Your task to perform on an android device: Turn on the flashlight Image 0: 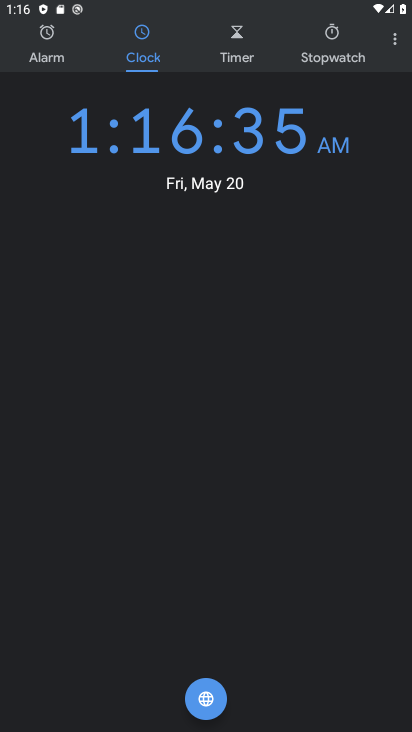
Step 0: drag from (175, 14) to (1, 290)
Your task to perform on an android device: Turn on the flashlight Image 1: 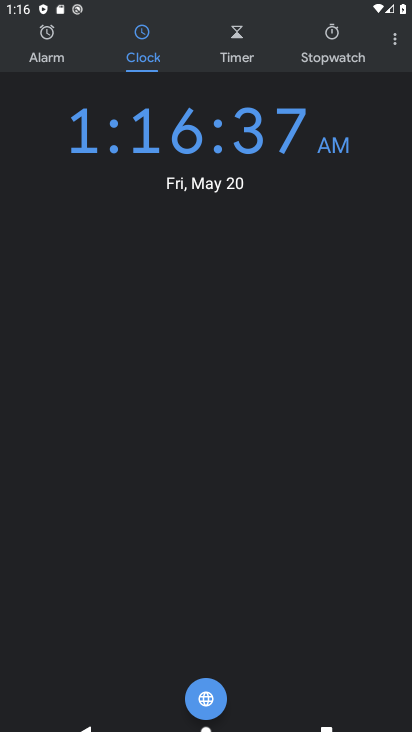
Step 1: drag from (145, 67) to (143, 722)
Your task to perform on an android device: Turn on the flashlight Image 2: 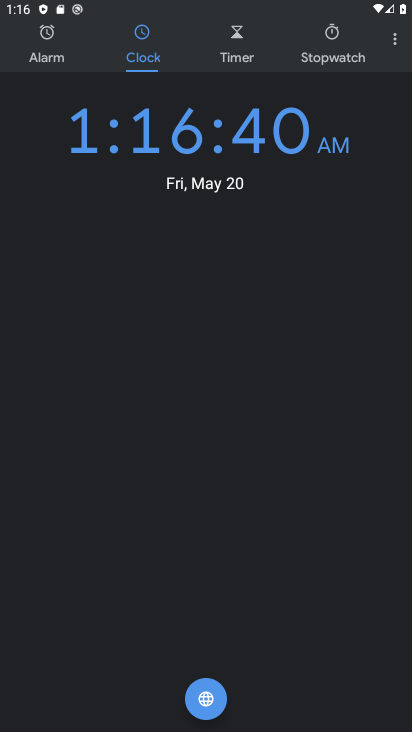
Step 2: drag from (176, 12) to (163, 711)
Your task to perform on an android device: Turn on the flashlight Image 3: 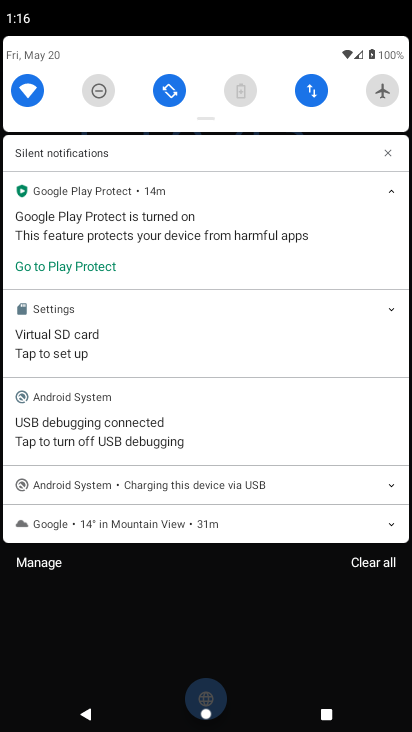
Step 3: drag from (122, 111) to (209, 668)
Your task to perform on an android device: Turn on the flashlight Image 4: 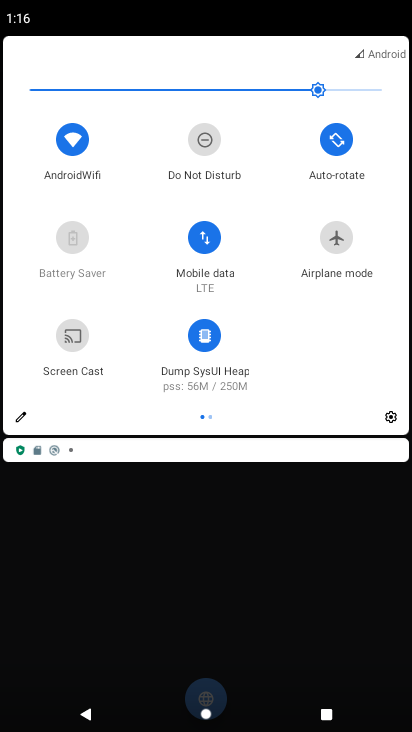
Step 4: click (386, 410)
Your task to perform on an android device: Turn on the flashlight Image 5: 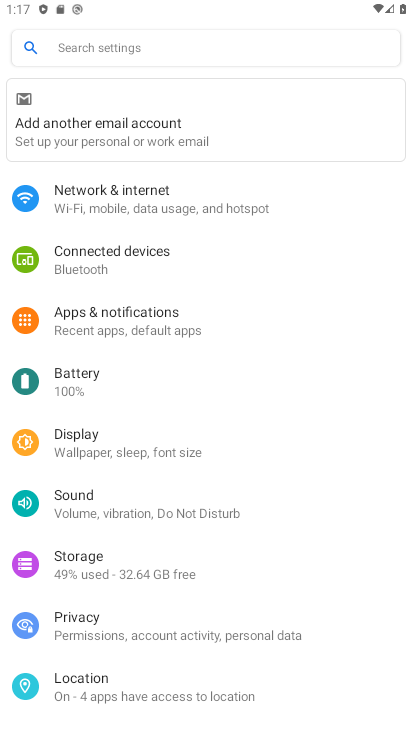
Step 5: task complete